Your task to perform on an android device: Open notification settings Image 0: 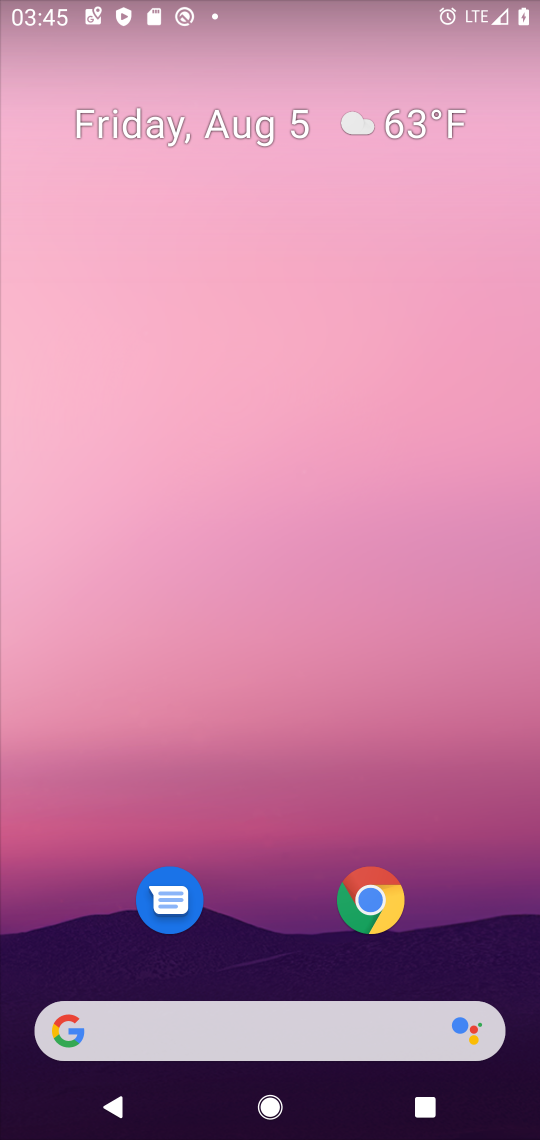
Step 0: drag from (294, 838) to (355, 103)
Your task to perform on an android device: Open notification settings Image 1: 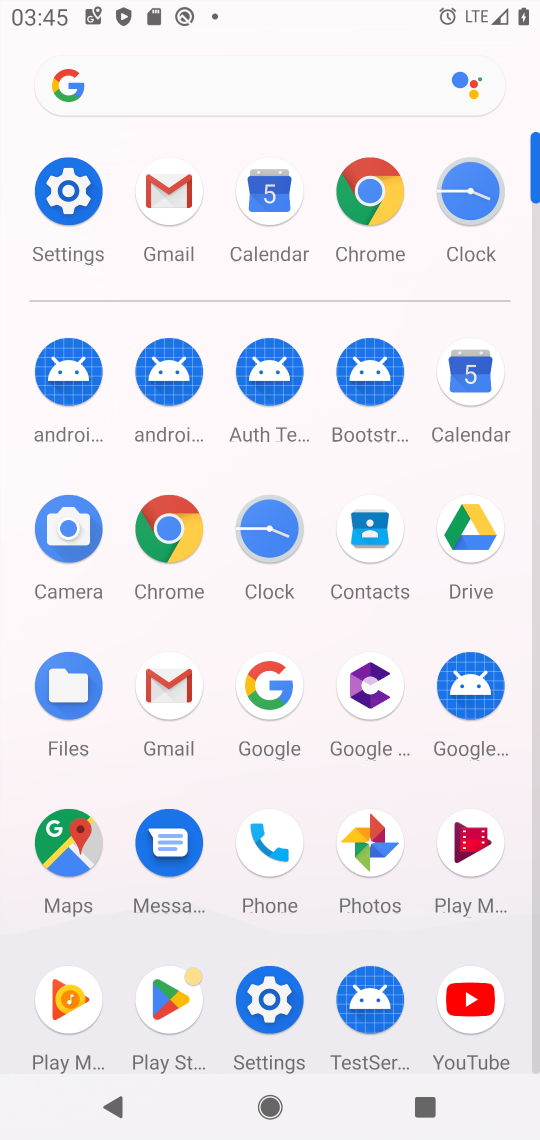
Step 1: click (69, 205)
Your task to perform on an android device: Open notification settings Image 2: 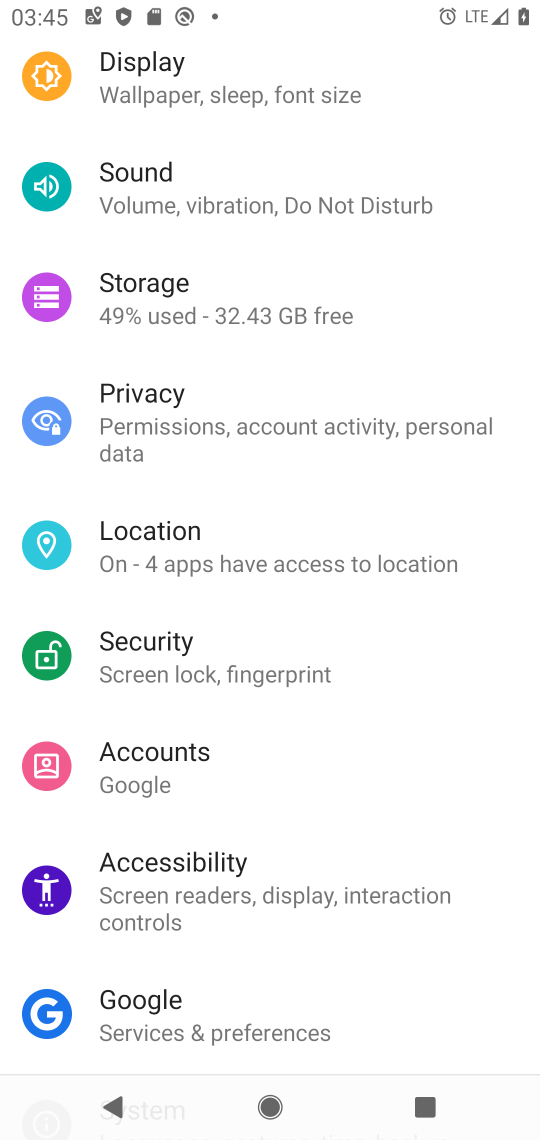
Step 2: drag from (384, 308) to (302, 1139)
Your task to perform on an android device: Open notification settings Image 3: 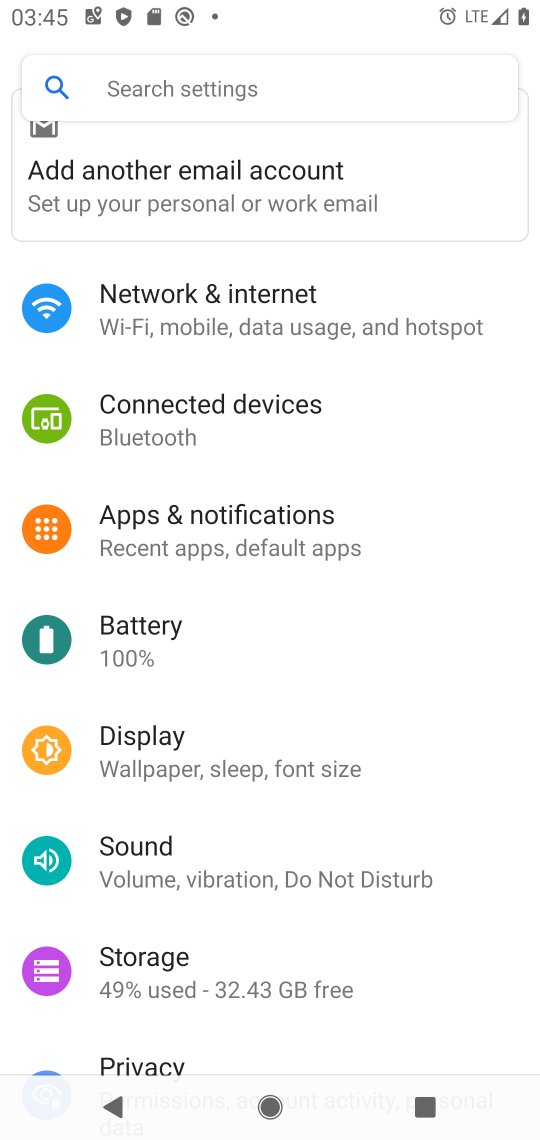
Step 3: click (221, 526)
Your task to perform on an android device: Open notification settings Image 4: 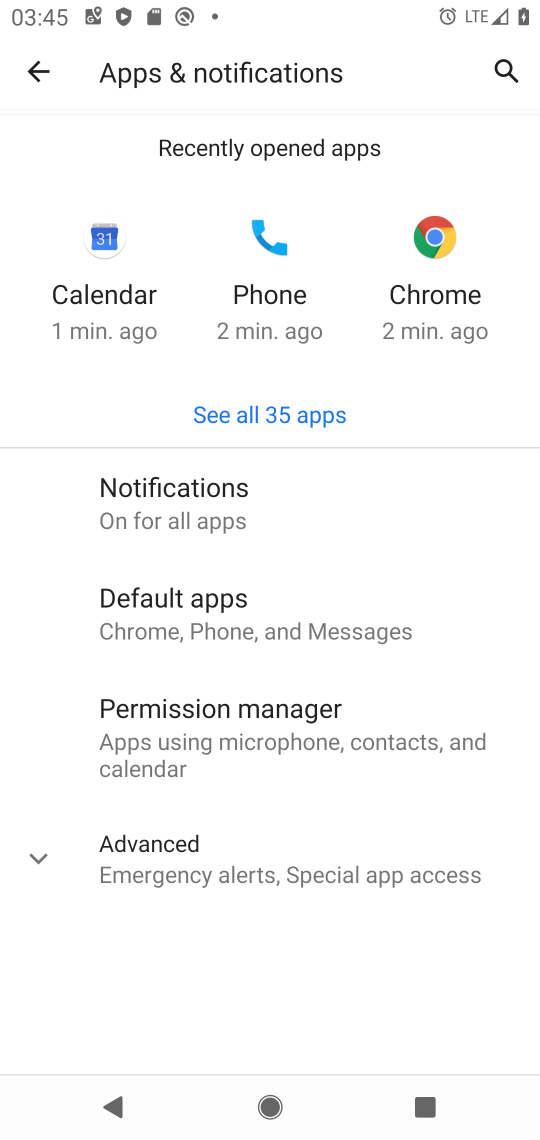
Step 4: task complete